Your task to perform on an android device: open sync settings in chrome Image 0: 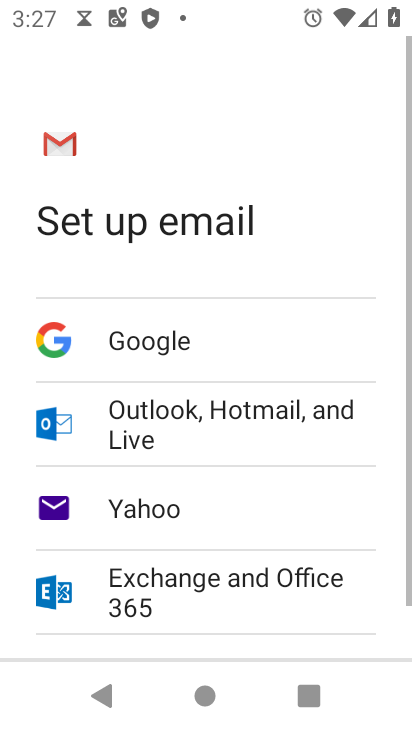
Step 0: press home button
Your task to perform on an android device: open sync settings in chrome Image 1: 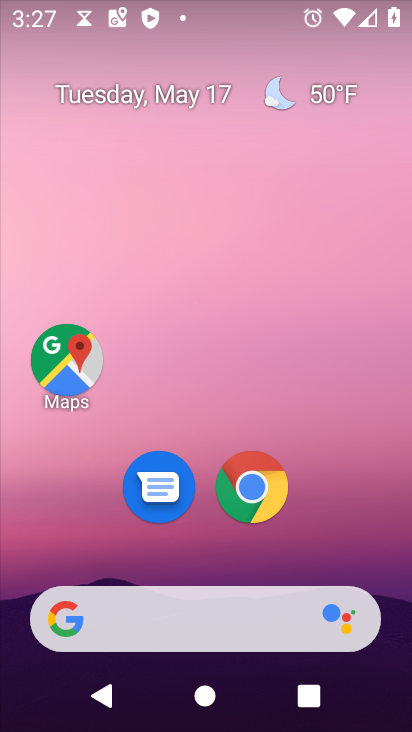
Step 1: click (253, 478)
Your task to perform on an android device: open sync settings in chrome Image 2: 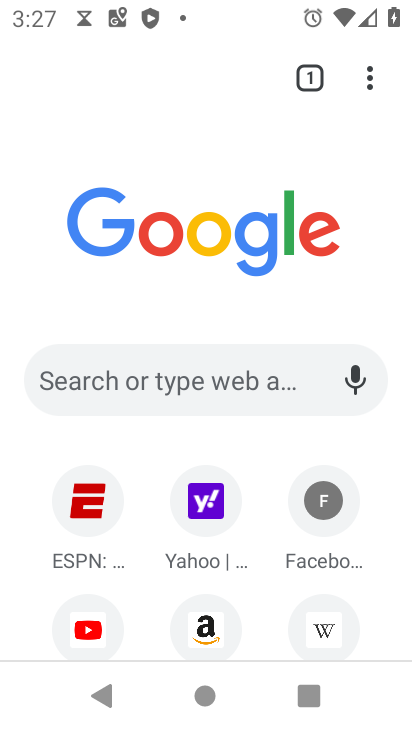
Step 2: click (369, 86)
Your task to perform on an android device: open sync settings in chrome Image 3: 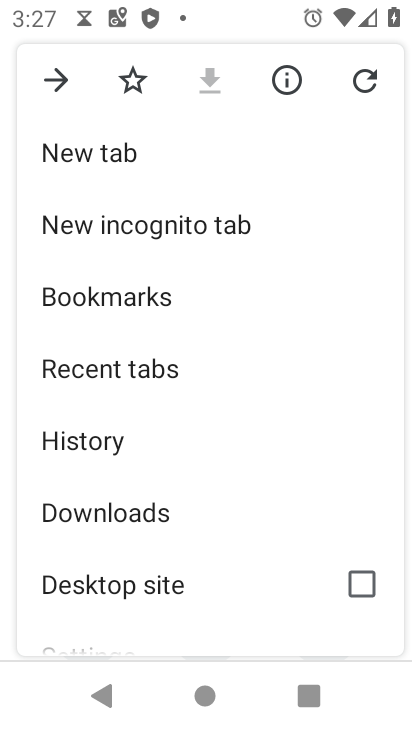
Step 3: drag from (215, 545) to (250, 168)
Your task to perform on an android device: open sync settings in chrome Image 4: 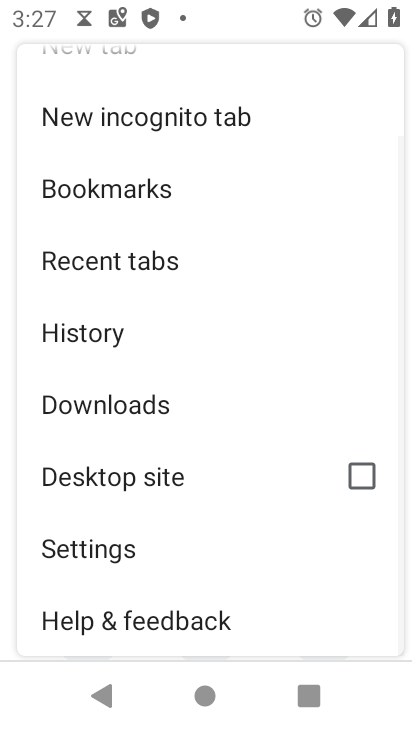
Step 4: click (109, 553)
Your task to perform on an android device: open sync settings in chrome Image 5: 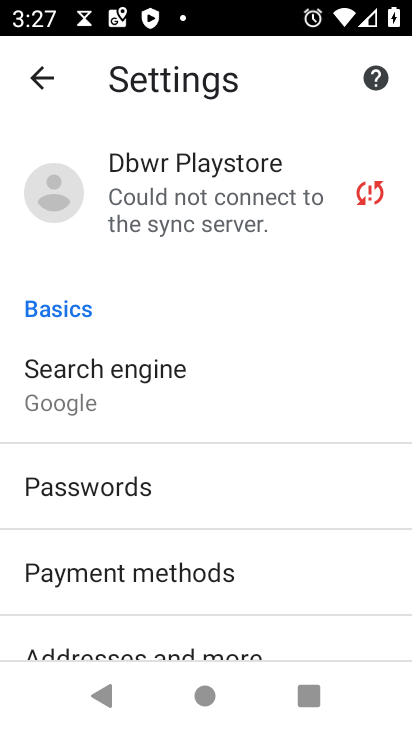
Step 5: click (179, 194)
Your task to perform on an android device: open sync settings in chrome Image 6: 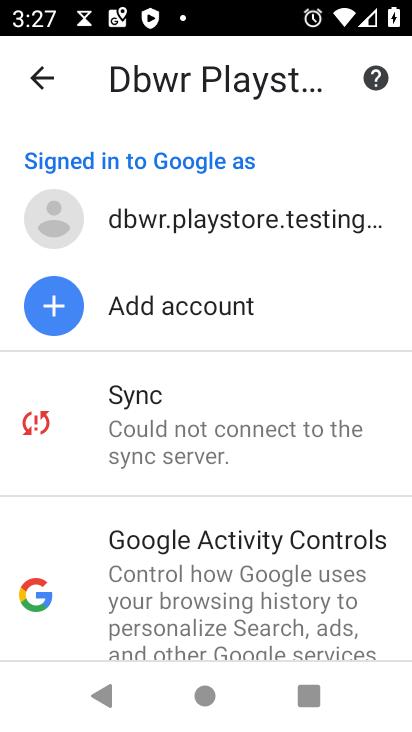
Step 6: click (151, 394)
Your task to perform on an android device: open sync settings in chrome Image 7: 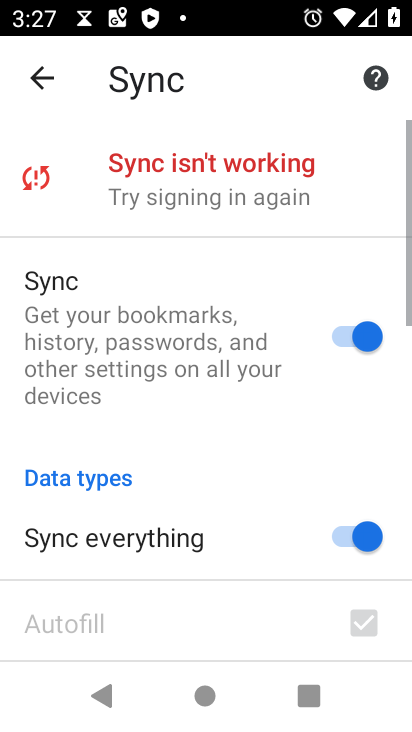
Step 7: task complete